Your task to perform on an android device: open app "Spotify" Image 0: 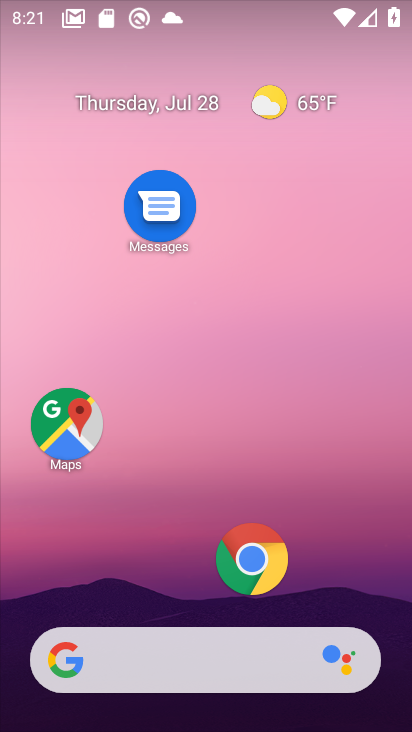
Step 0: drag from (198, 547) to (232, 13)
Your task to perform on an android device: open app "Spotify" Image 1: 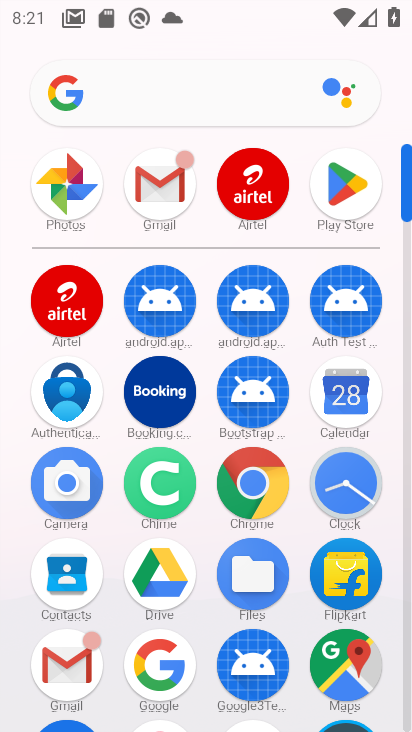
Step 1: click (363, 195)
Your task to perform on an android device: open app "Spotify" Image 2: 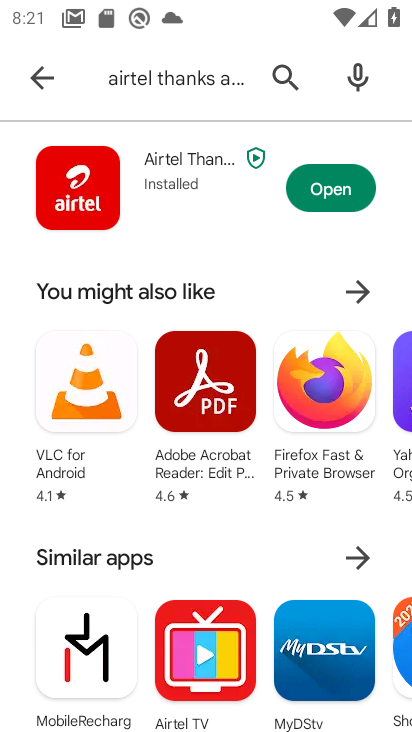
Step 2: click (198, 78)
Your task to perform on an android device: open app "Spotify" Image 3: 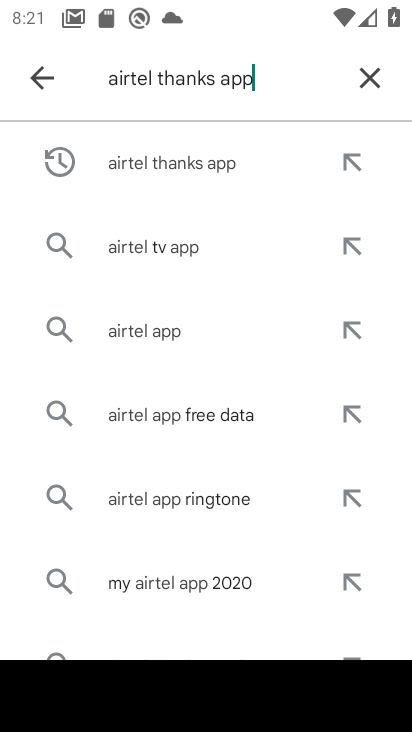
Step 3: click (367, 78)
Your task to perform on an android device: open app "Spotify" Image 4: 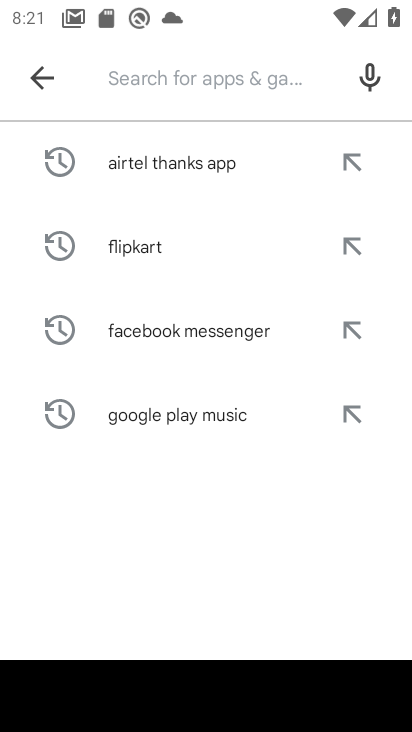
Step 4: type "spotify"
Your task to perform on an android device: open app "Spotify" Image 5: 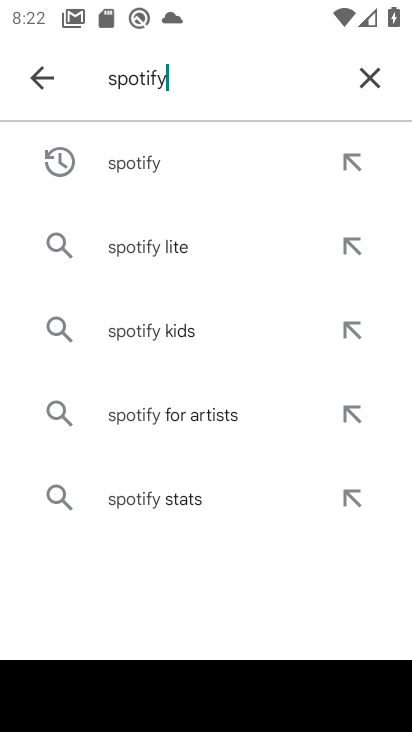
Step 5: click (180, 160)
Your task to perform on an android device: open app "Spotify" Image 6: 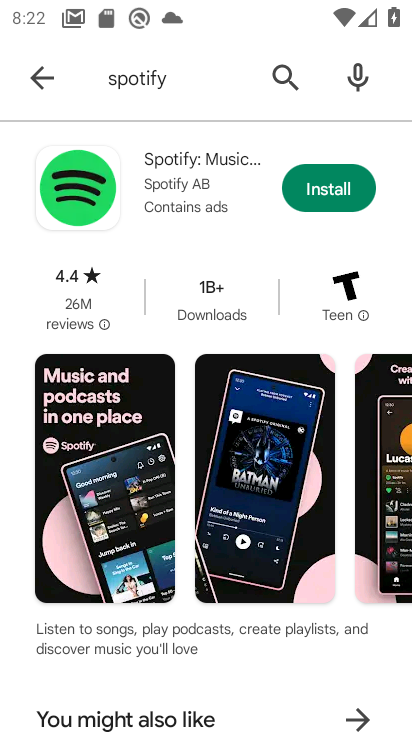
Step 6: task complete